Your task to perform on an android device: Go to Reddit.com Image 0: 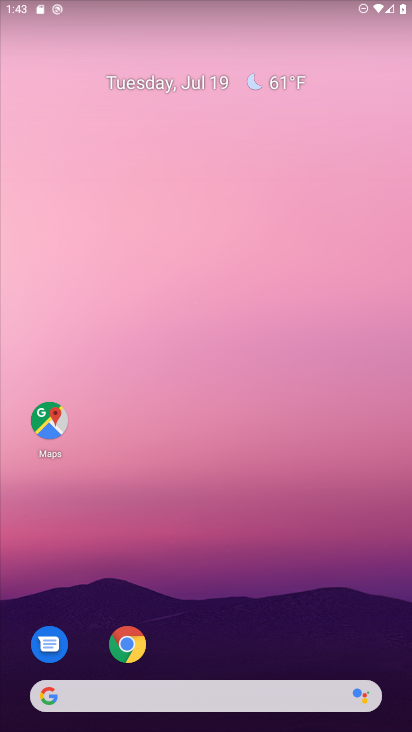
Step 0: click (124, 634)
Your task to perform on an android device: Go to Reddit.com Image 1: 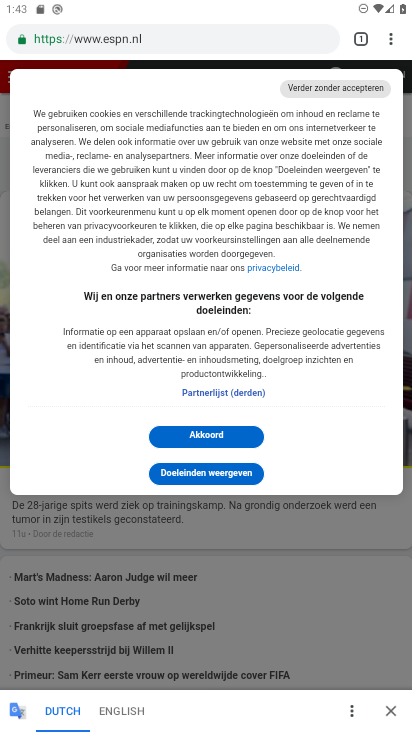
Step 1: click (360, 44)
Your task to perform on an android device: Go to Reddit.com Image 2: 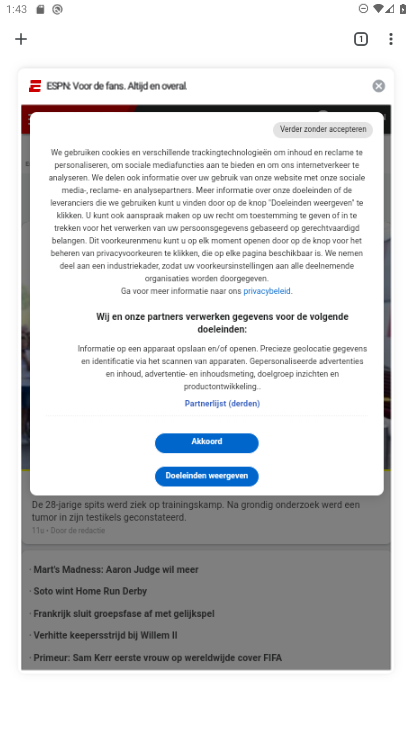
Step 2: click (20, 40)
Your task to perform on an android device: Go to Reddit.com Image 3: 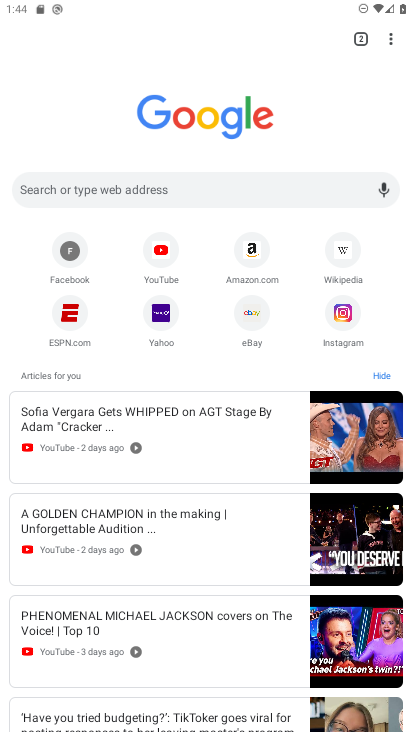
Step 3: click (161, 188)
Your task to perform on an android device: Go to Reddit.com Image 4: 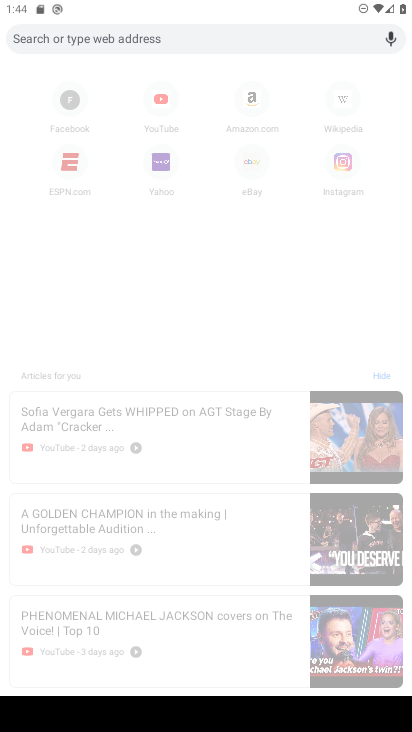
Step 4: type "reddit"
Your task to perform on an android device: Go to Reddit.com Image 5: 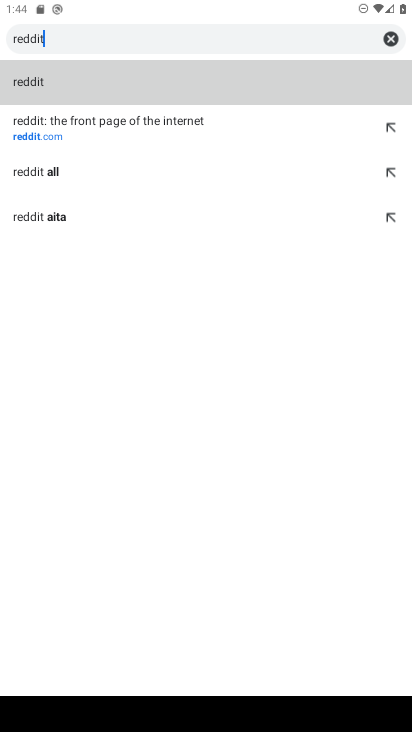
Step 5: type ""
Your task to perform on an android device: Go to Reddit.com Image 6: 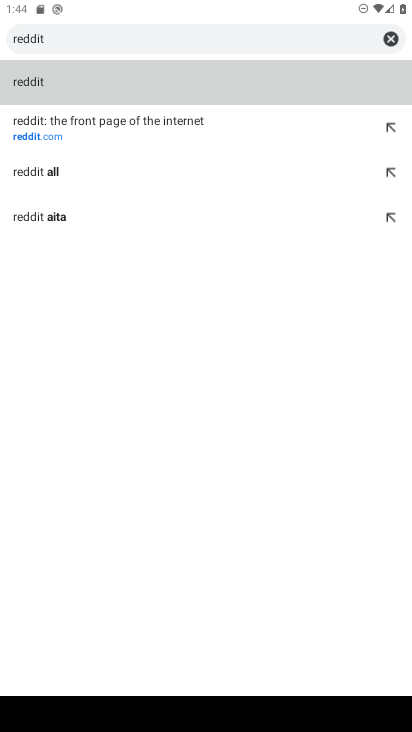
Step 6: click (50, 130)
Your task to perform on an android device: Go to Reddit.com Image 7: 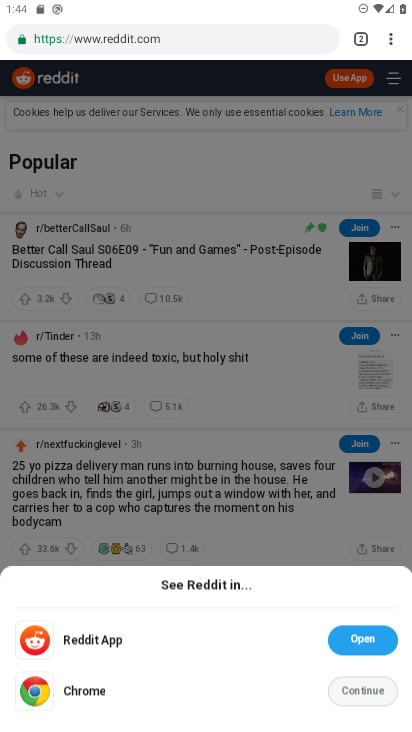
Step 7: task complete